Your task to perform on an android device: Open Maps and search for coffee Image 0: 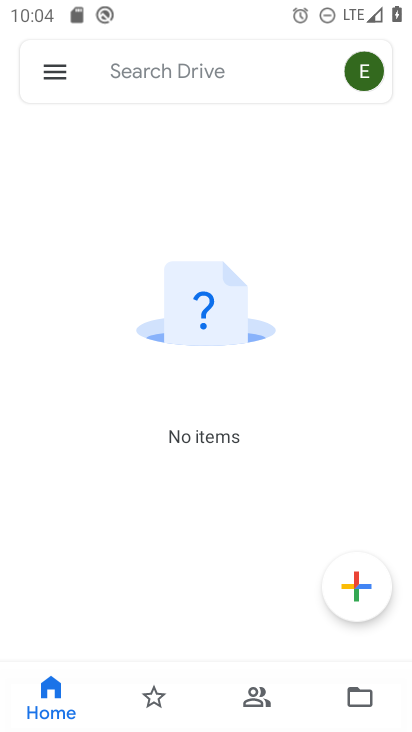
Step 0: press home button
Your task to perform on an android device: Open Maps and search for coffee Image 1: 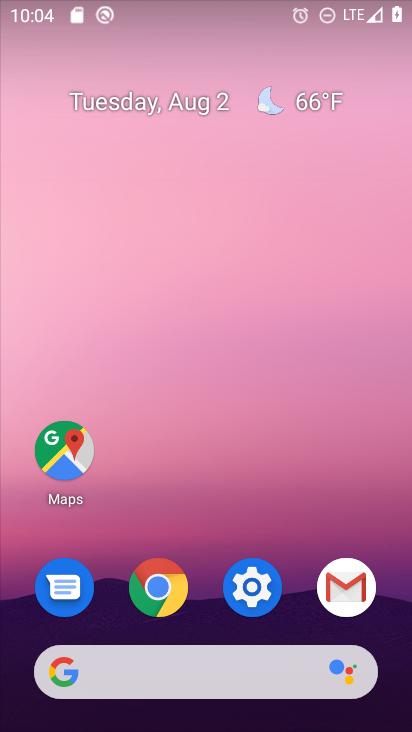
Step 1: click (54, 448)
Your task to perform on an android device: Open Maps and search for coffee Image 2: 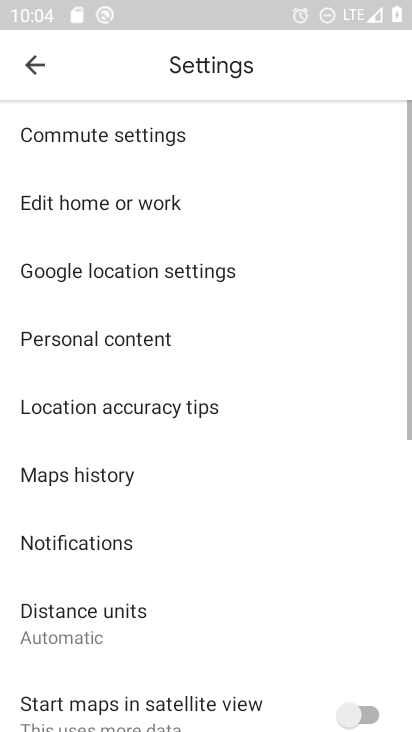
Step 2: click (36, 67)
Your task to perform on an android device: Open Maps and search for coffee Image 3: 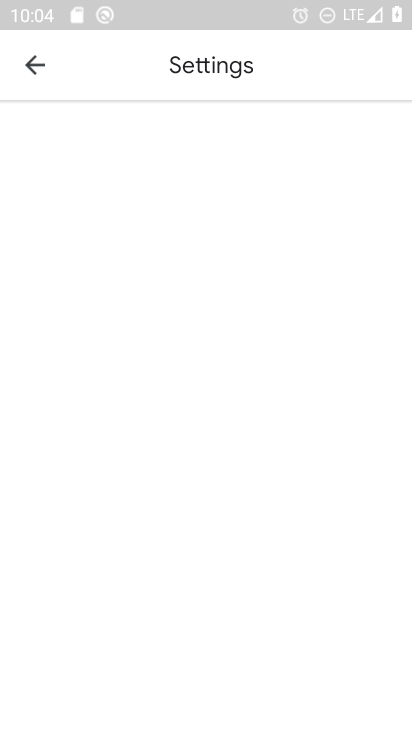
Step 3: click (20, 66)
Your task to perform on an android device: Open Maps and search for coffee Image 4: 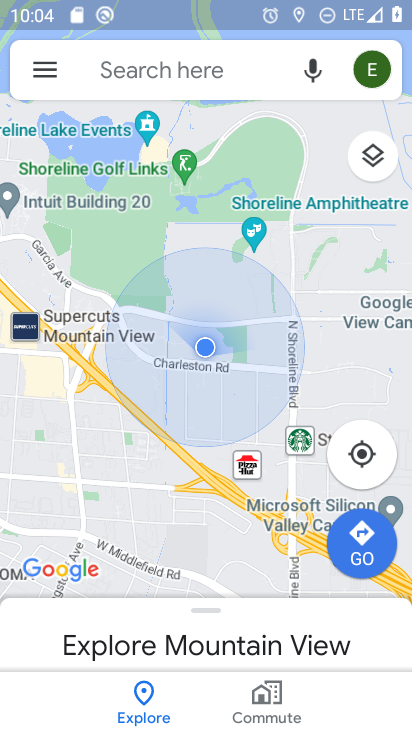
Step 4: click (150, 67)
Your task to perform on an android device: Open Maps and search for coffee Image 5: 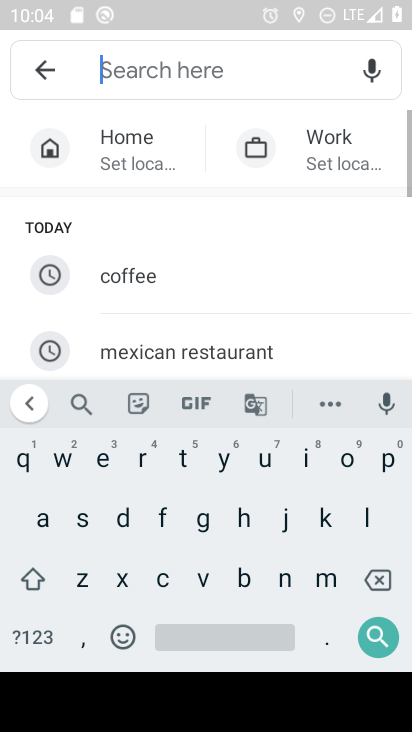
Step 5: click (148, 264)
Your task to perform on an android device: Open Maps and search for coffee Image 6: 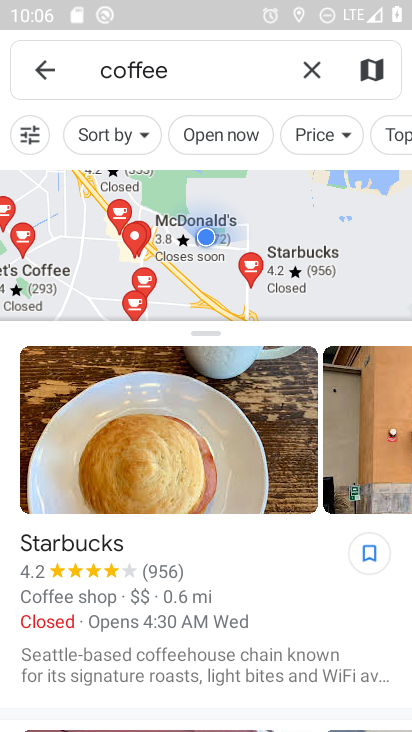
Step 6: task complete